Your task to perform on an android device: remove spam from my inbox in the gmail app Image 0: 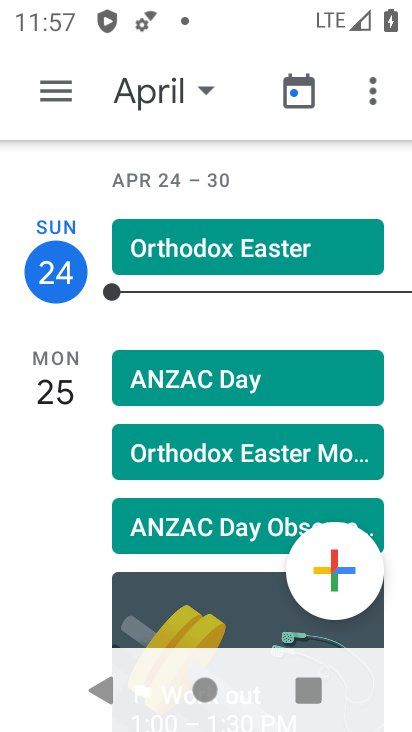
Step 0: press home button
Your task to perform on an android device: remove spam from my inbox in the gmail app Image 1: 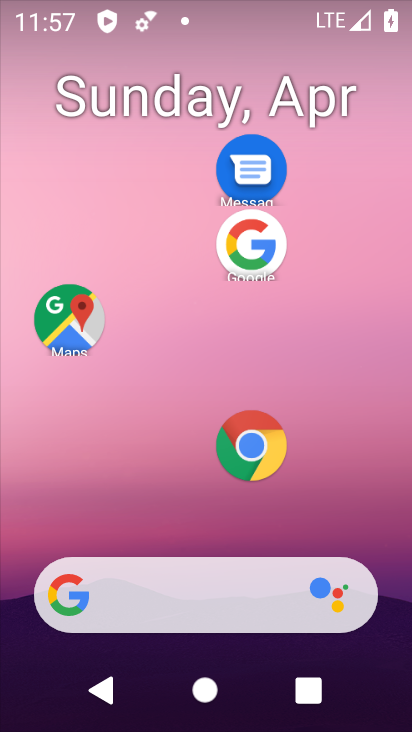
Step 1: drag from (162, 598) to (241, 148)
Your task to perform on an android device: remove spam from my inbox in the gmail app Image 2: 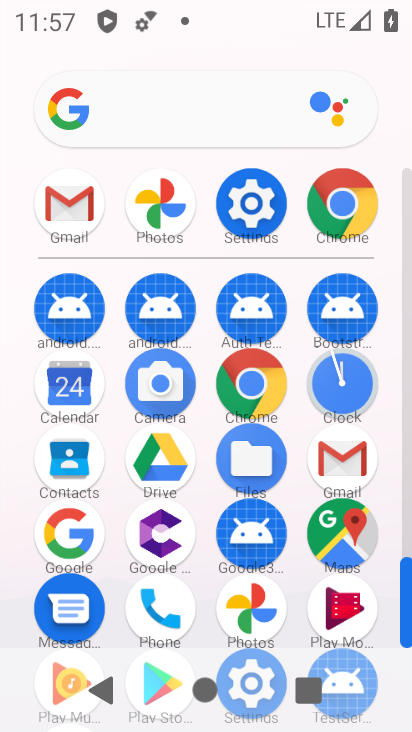
Step 2: click (77, 219)
Your task to perform on an android device: remove spam from my inbox in the gmail app Image 3: 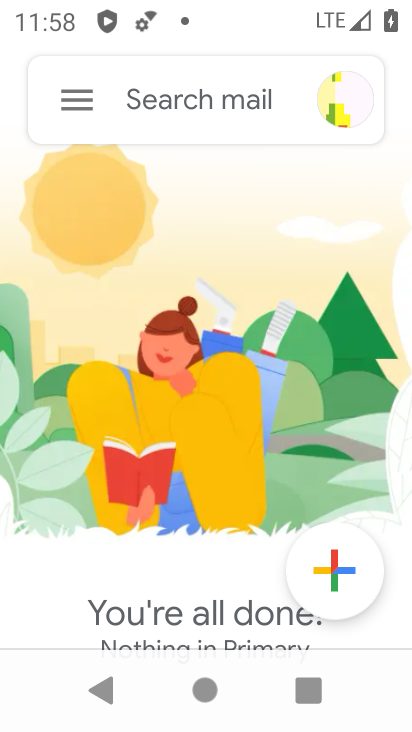
Step 3: click (84, 101)
Your task to perform on an android device: remove spam from my inbox in the gmail app Image 4: 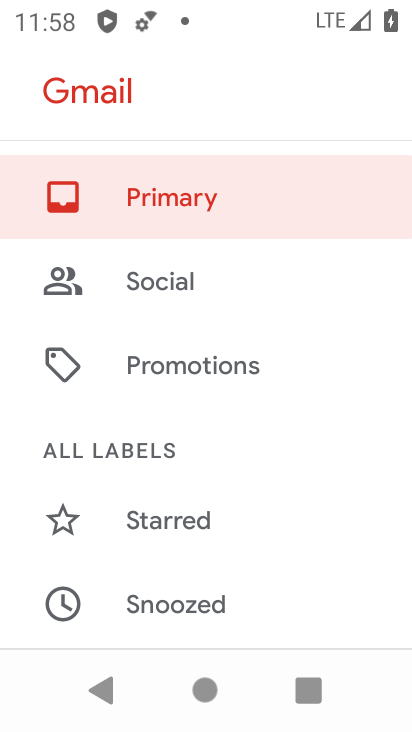
Step 4: drag from (239, 541) to (347, 60)
Your task to perform on an android device: remove spam from my inbox in the gmail app Image 5: 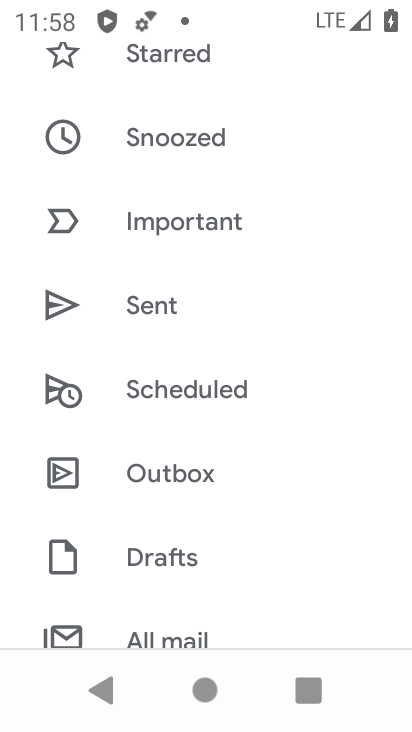
Step 5: drag from (210, 579) to (315, 155)
Your task to perform on an android device: remove spam from my inbox in the gmail app Image 6: 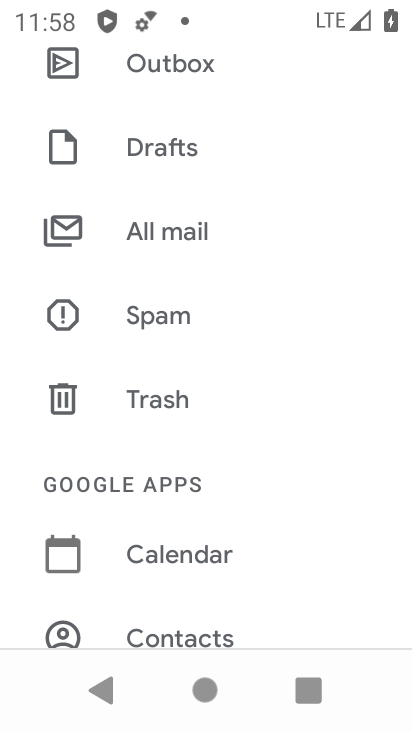
Step 6: click (168, 316)
Your task to perform on an android device: remove spam from my inbox in the gmail app Image 7: 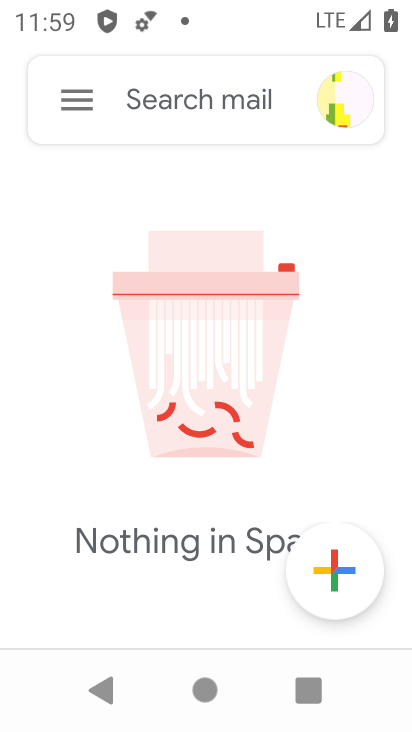
Step 7: task complete